Your task to perform on an android device: Open internet settings Image 0: 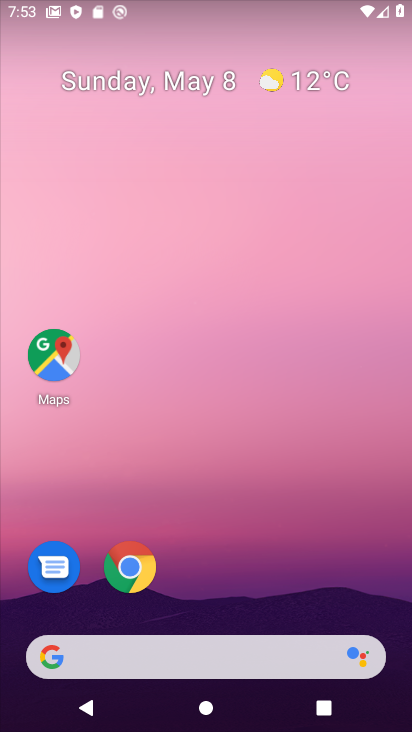
Step 0: drag from (208, 646) to (189, 84)
Your task to perform on an android device: Open internet settings Image 1: 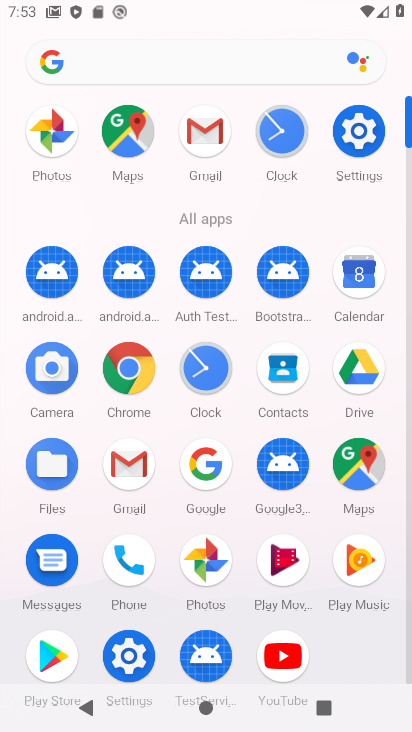
Step 1: click (357, 150)
Your task to perform on an android device: Open internet settings Image 2: 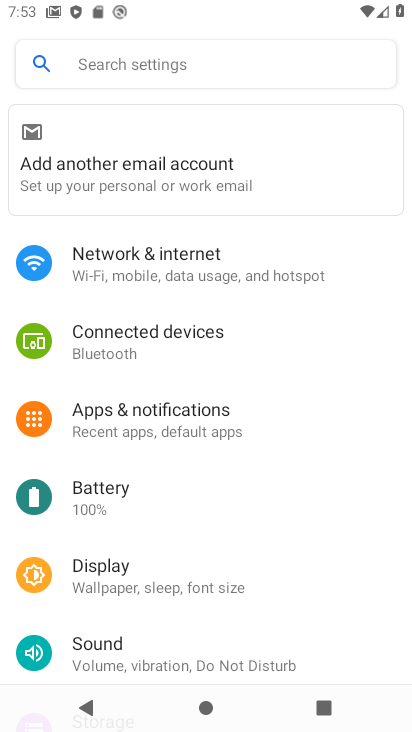
Step 2: click (159, 262)
Your task to perform on an android device: Open internet settings Image 3: 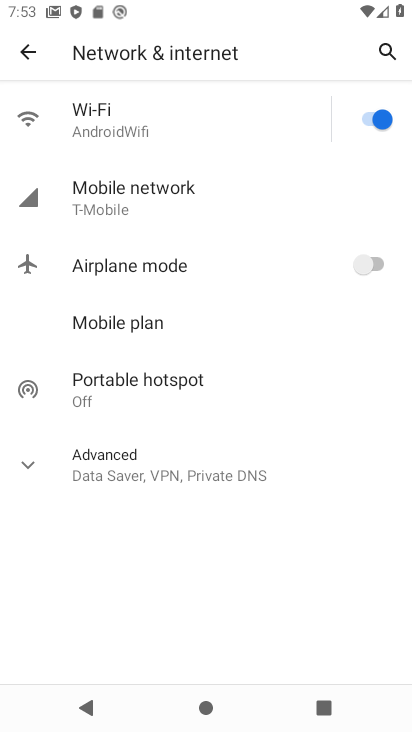
Step 3: task complete